Your task to perform on an android device: What's the weather today? Image 0: 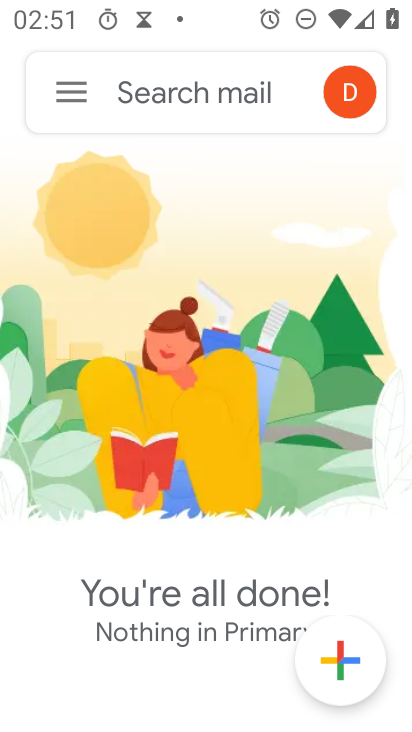
Step 0: press home button
Your task to perform on an android device: What's the weather today? Image 1: 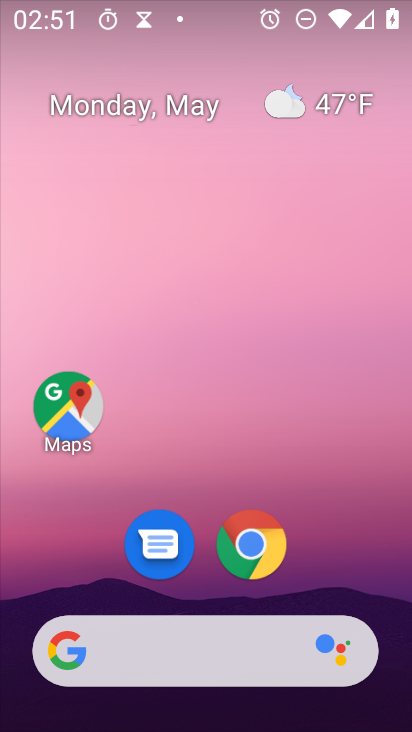
Step 1: drag from (283, 601) to (287, 1)
Your task to perform on an android device: What's the weather today? Image 2: 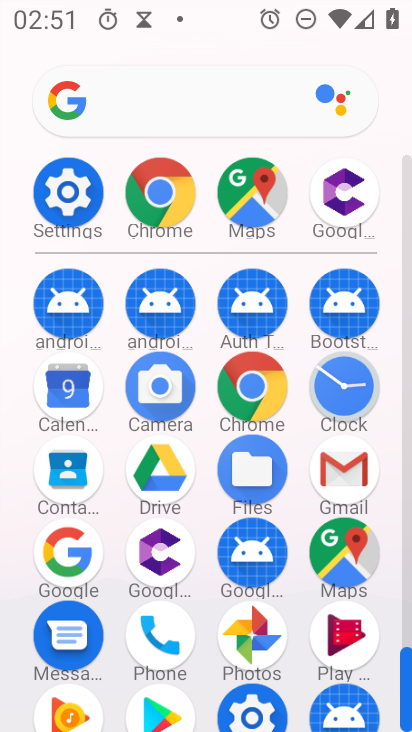
Step 2: click (249, 369)
Your task to perform on an android device: What's the weather today? Image 3: 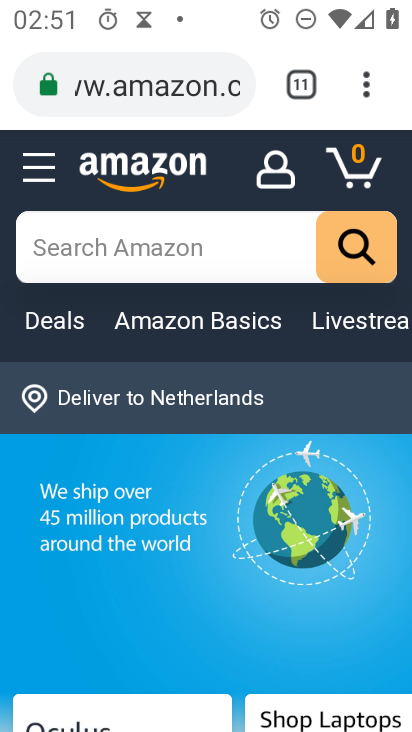
Step 3: click (158, 83)
Your task to perform on an android device: What's the weather today? Image 4: 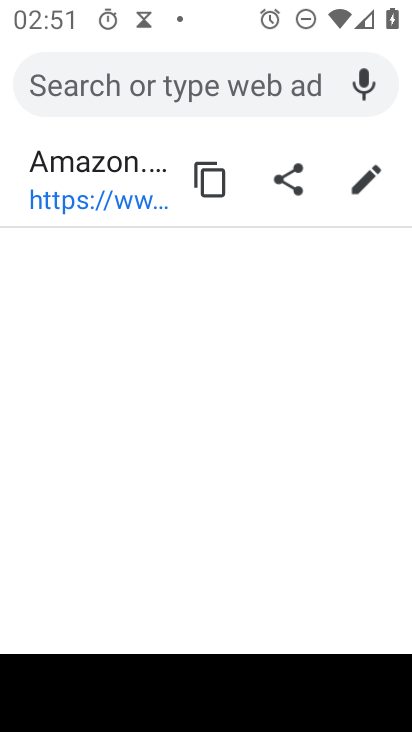
Step 4: type "weather today"
Your task to perform on an android device: What's the weather today? Image 5: 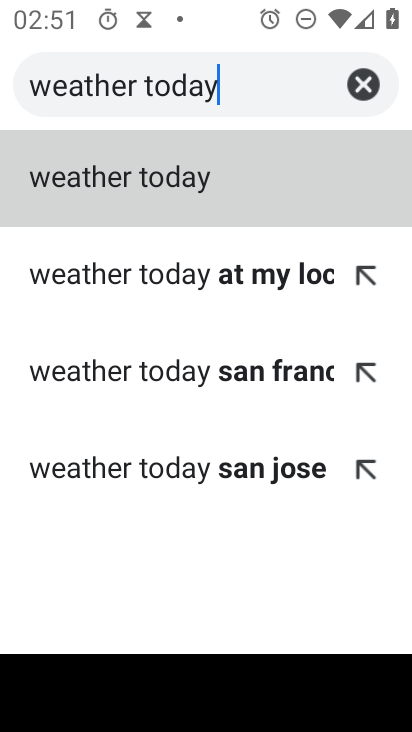
Step 5: click (199, 196)
Your task to perform on an android device: What's the weather today? Image 6: 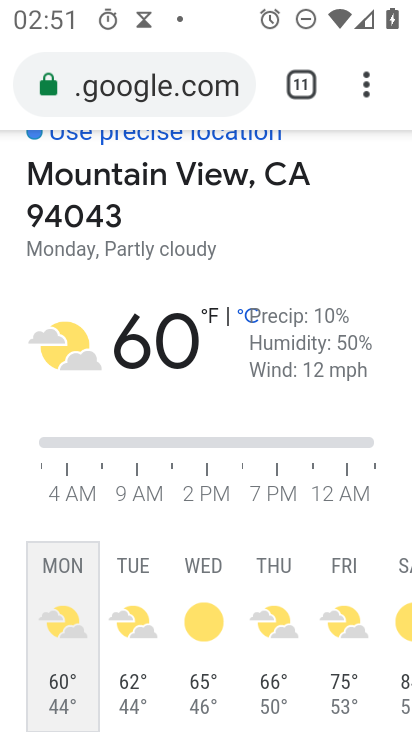
Step 6: task complete